Your task to perform on an android device: Open Maps and search for coffee Image 0: 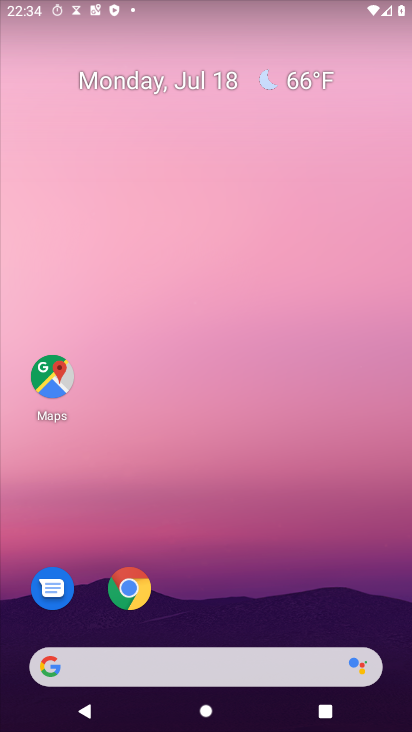
Step 0: press home button
Your task to perform on an android device: Open Maps and search for coffee Image 1: 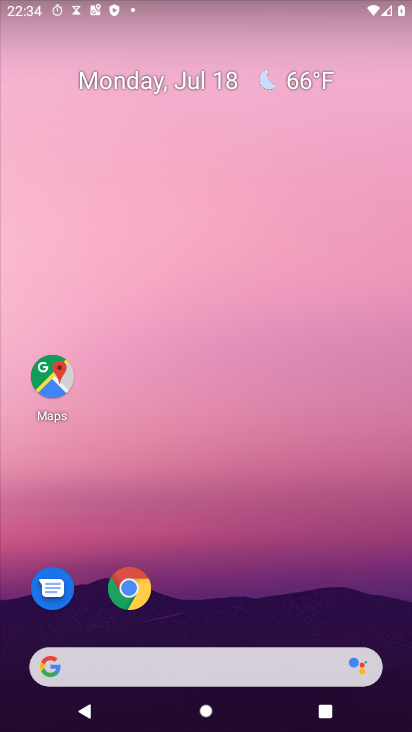
Step 1: click (62, 378)
Your task to perform on an android device: Open Maps and search for coffee Image 2: 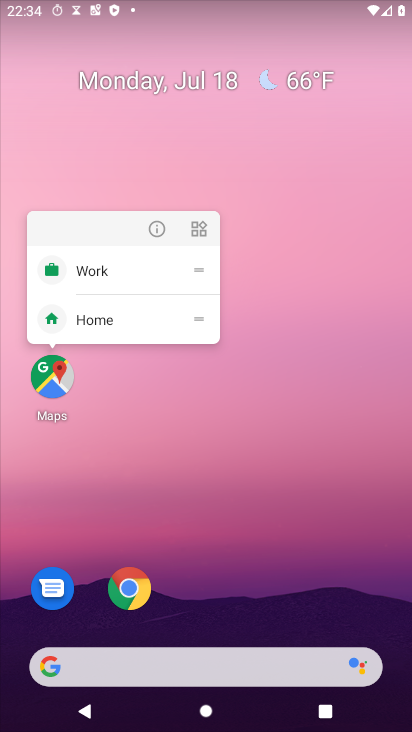
Step 2: click (62, 378)
Your task to perform on an android device: Open Maps and search for coffee Image 3: 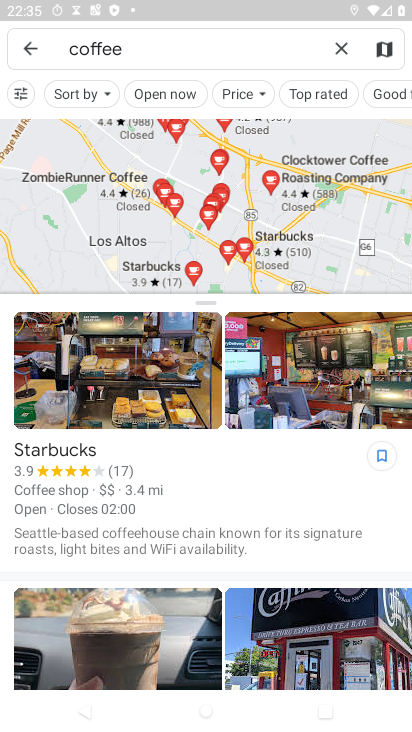
Step 3: task complete